Your task to perform on an android device: Open the calendar and show me this week's events? Image 0: 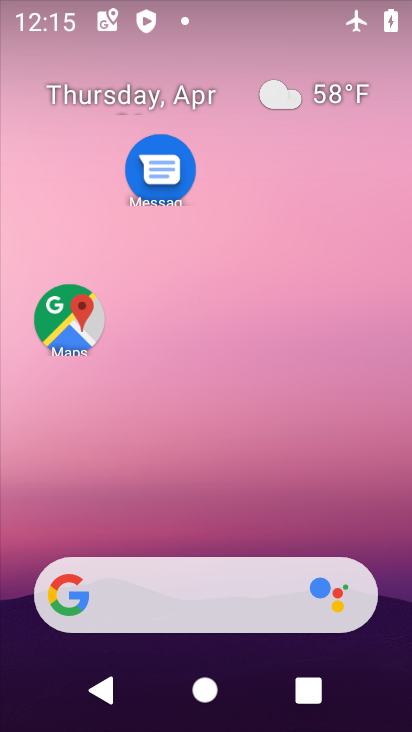
Step 0: drag from (188, 492) to (295, 36)
Your task to perform on an android device: Open the calendar and show me this week's events? Image 1: 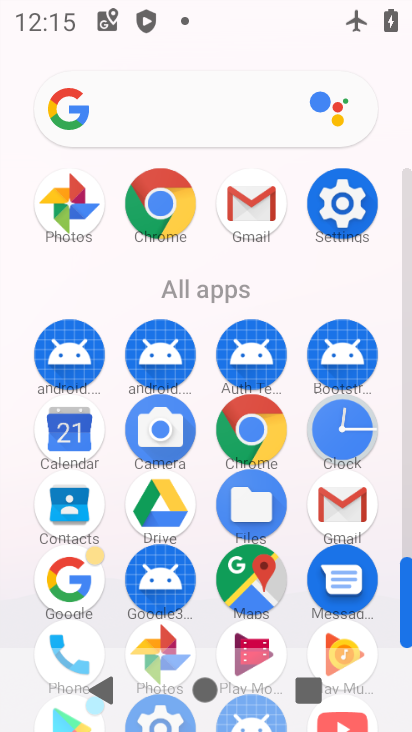
Step 1: drag from (208, 658) to (263, 319)
Your task to perform on an android device: Open the calendar and show me this week's events? Image 2: 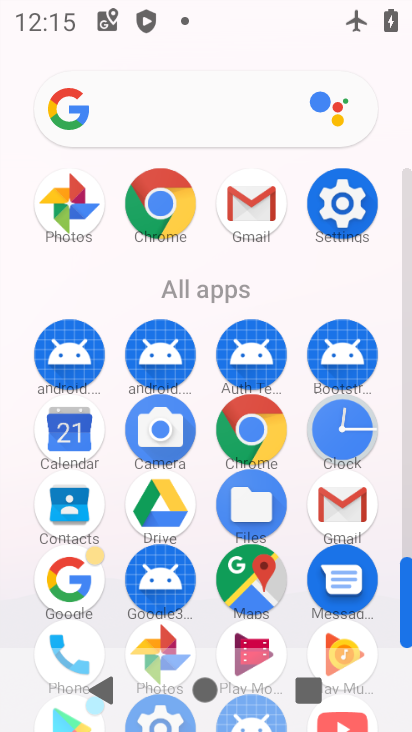
Step 2: click (77, 419)
Your task to perform on an android device: Open the calendar and show me this week's events? Image 3: 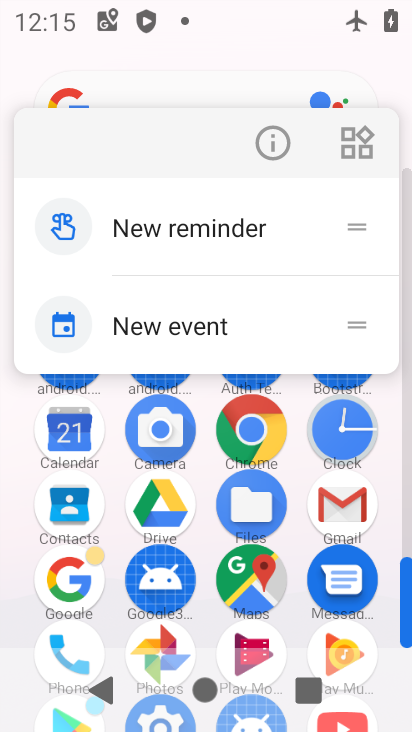
Step 3: click (271, 146)
Your task to perform on an android device: Open the calendar and show me this week's events? Image 4: 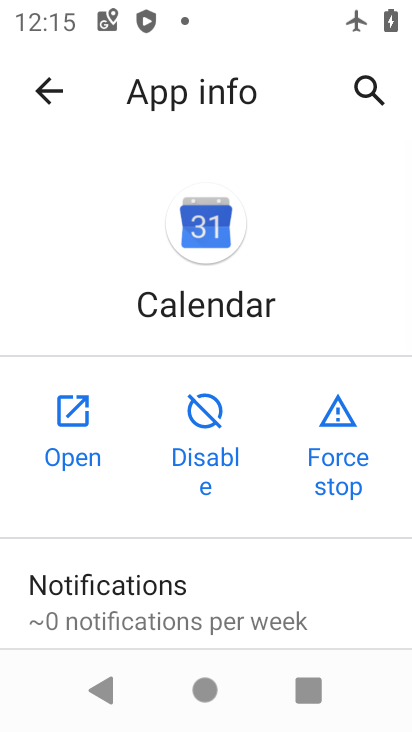
Step 4: click (94, 430)
Your task to perform on an android device: Open the calendar and show me this week's events? Image 5: 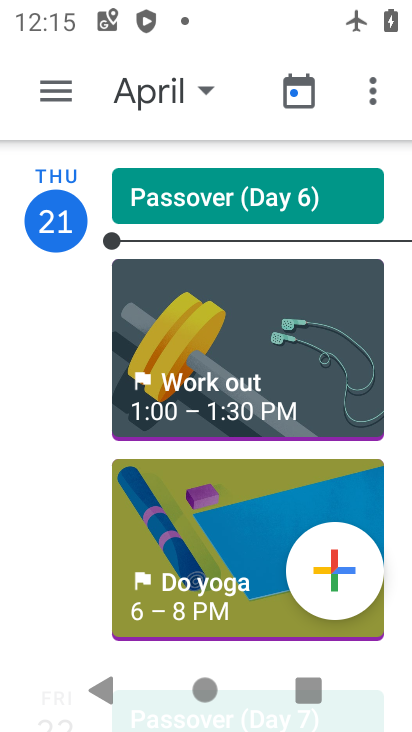
Step 5: task complete